Your task to perform on an android device: turn on location history Image 0: 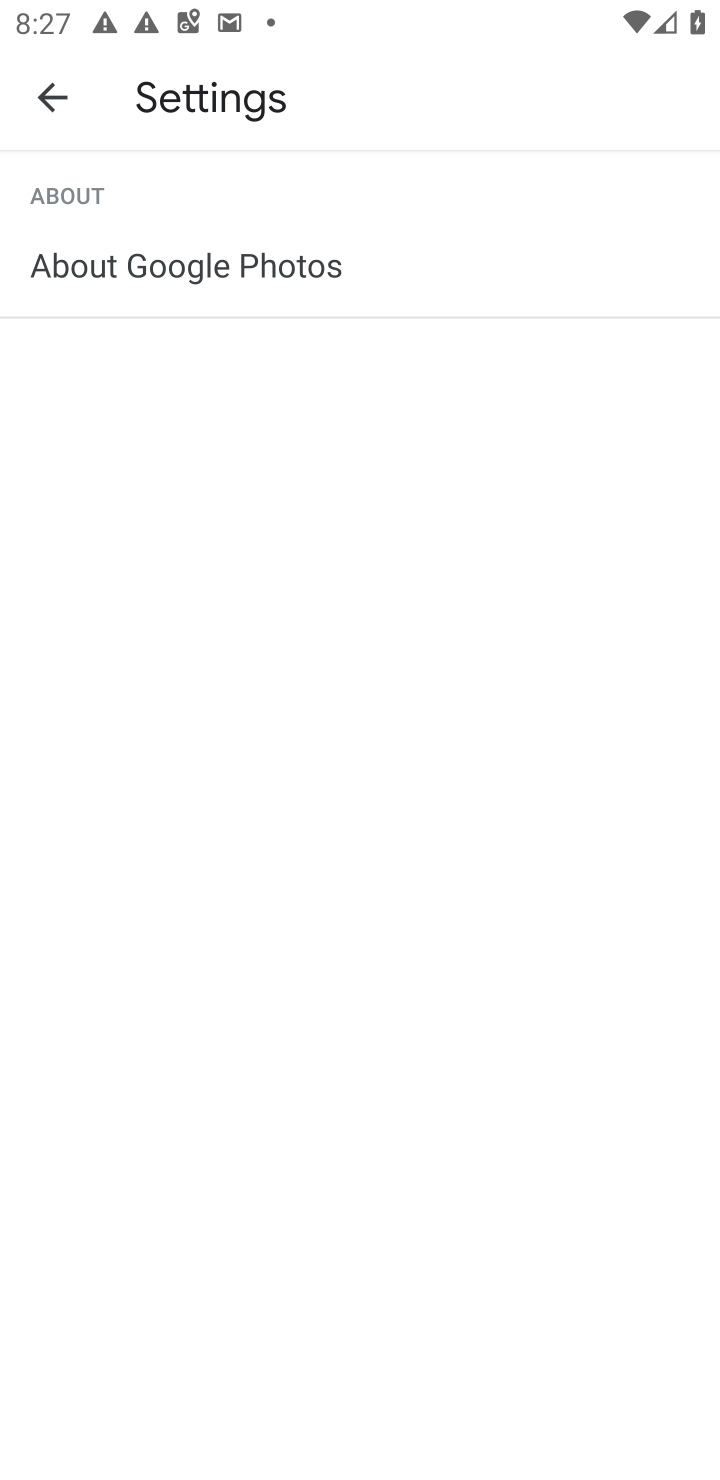
Step 0: press home button
Your task to perform on an android device: turn on location history Image 1: 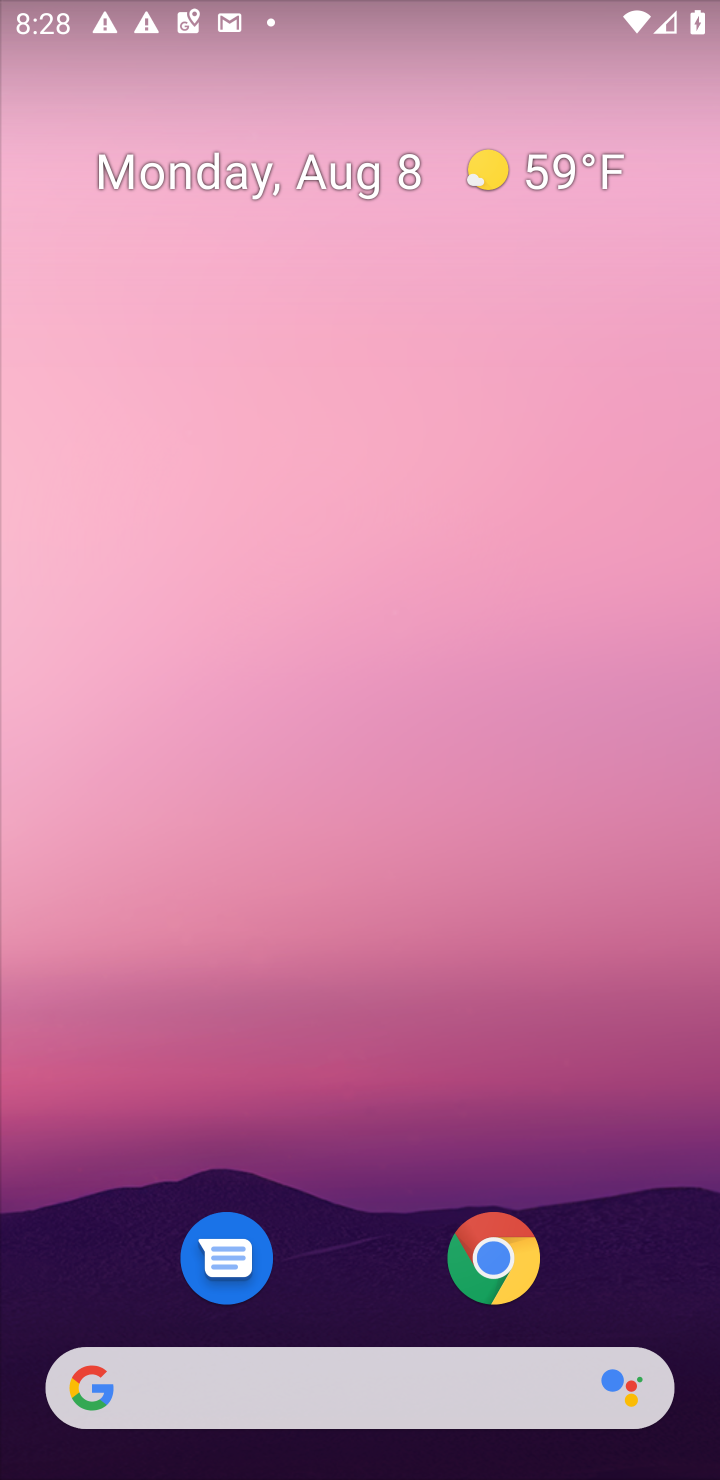
Step 1: drag from (365, 1087) to (484, 212)
Your task to perform on an android device: turn on location history Image 2: 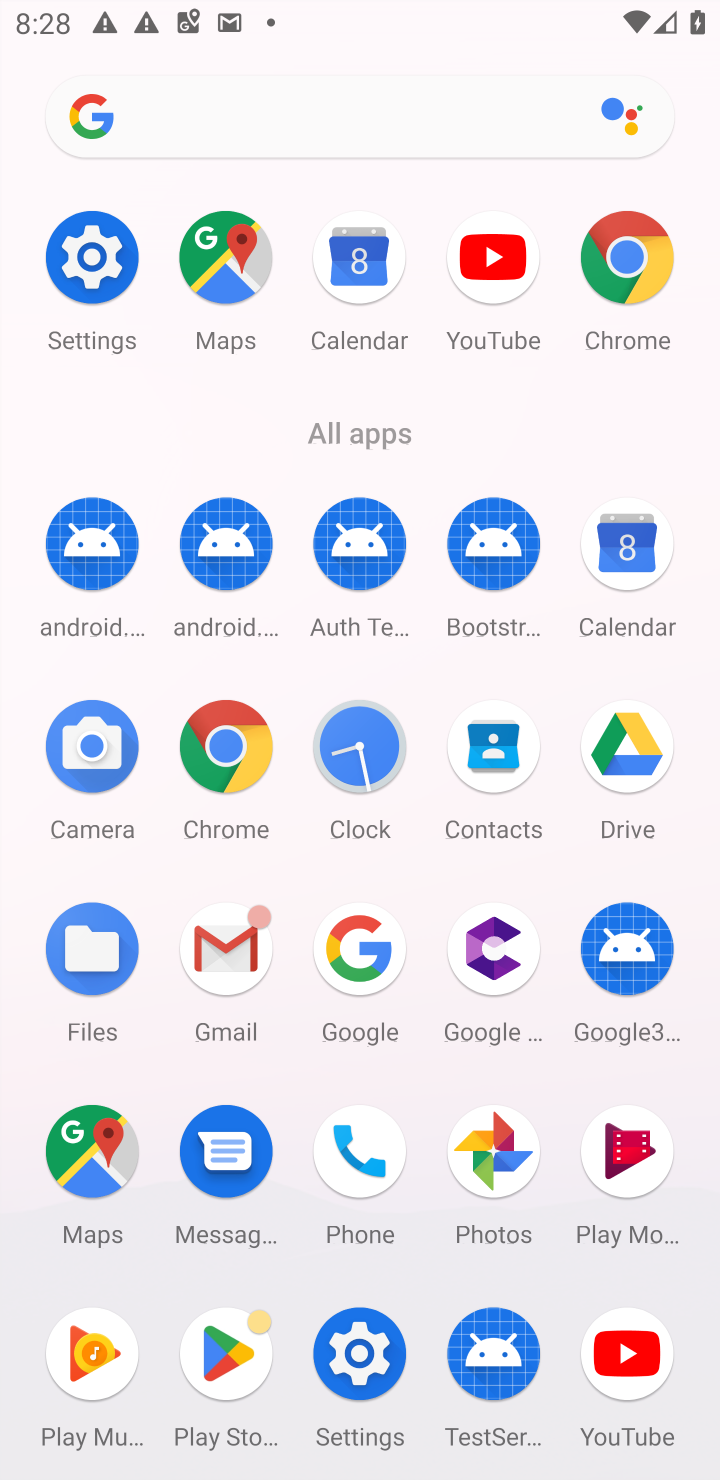
Step 2: click (111, 250)
Your task to perform on an android device: turn on location history Image 3: 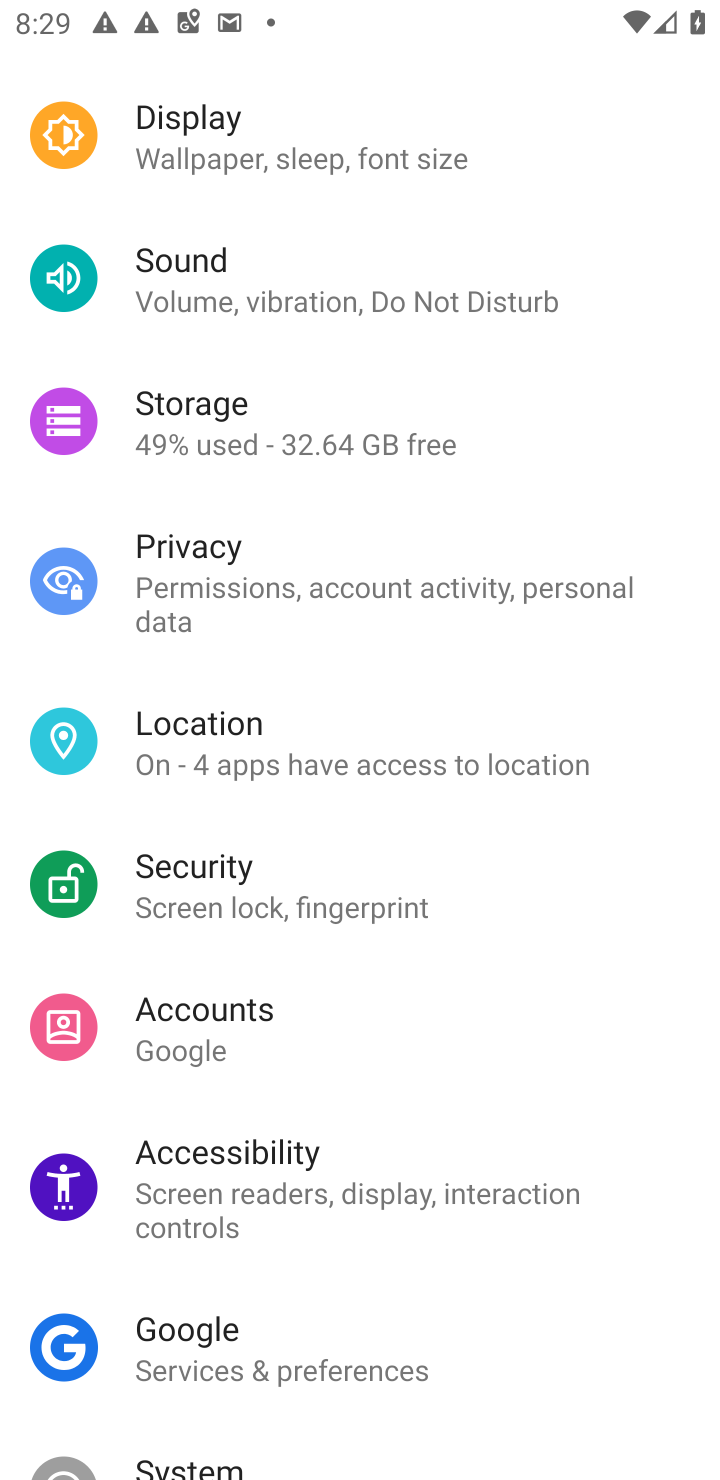
Step 3: press home button
Your task to perform on an android device: turn on location history Image 4: 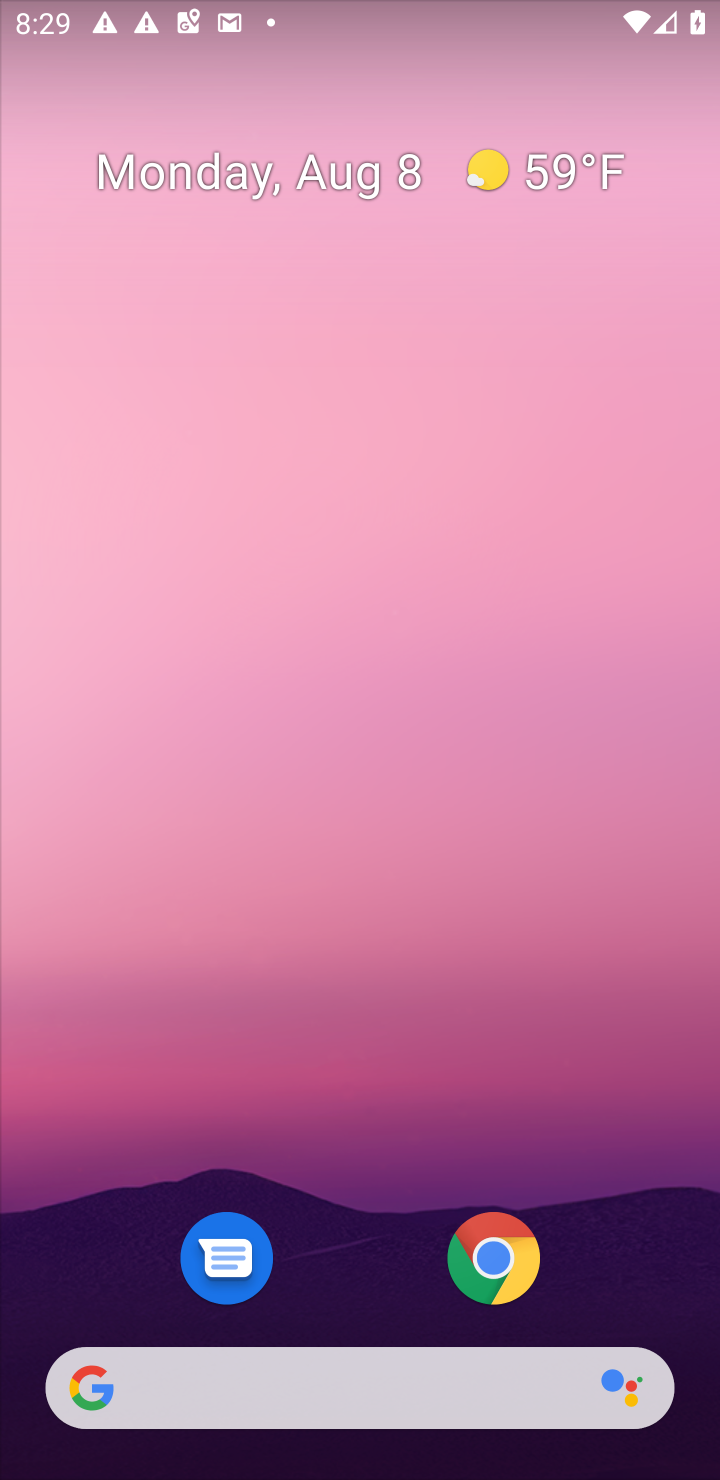
Step 4: drag from (294, 1055) to (357, 347)
Your task to perform on an android device: turn on location history Image 5: 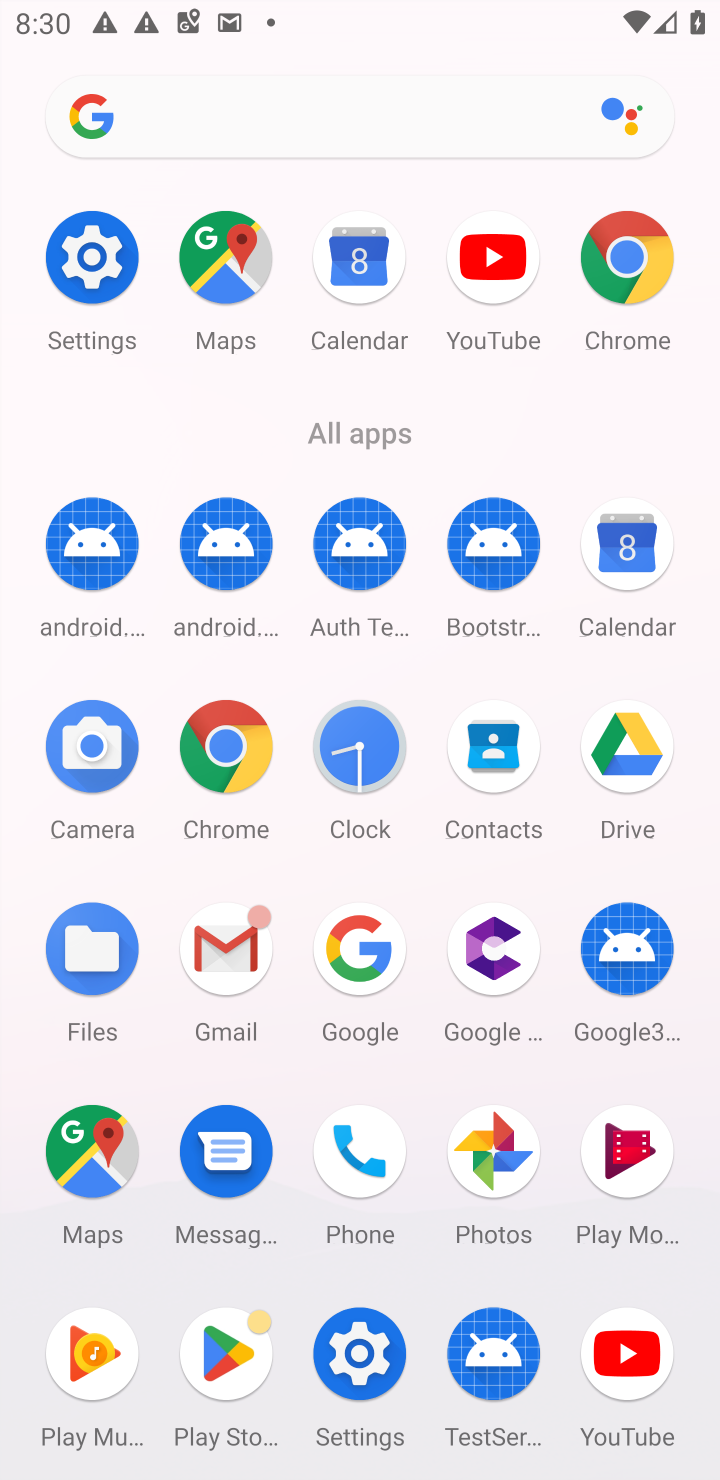
Step 5: click (335, 1347)
Your task to perform on an android device: turn on location history Image 6: 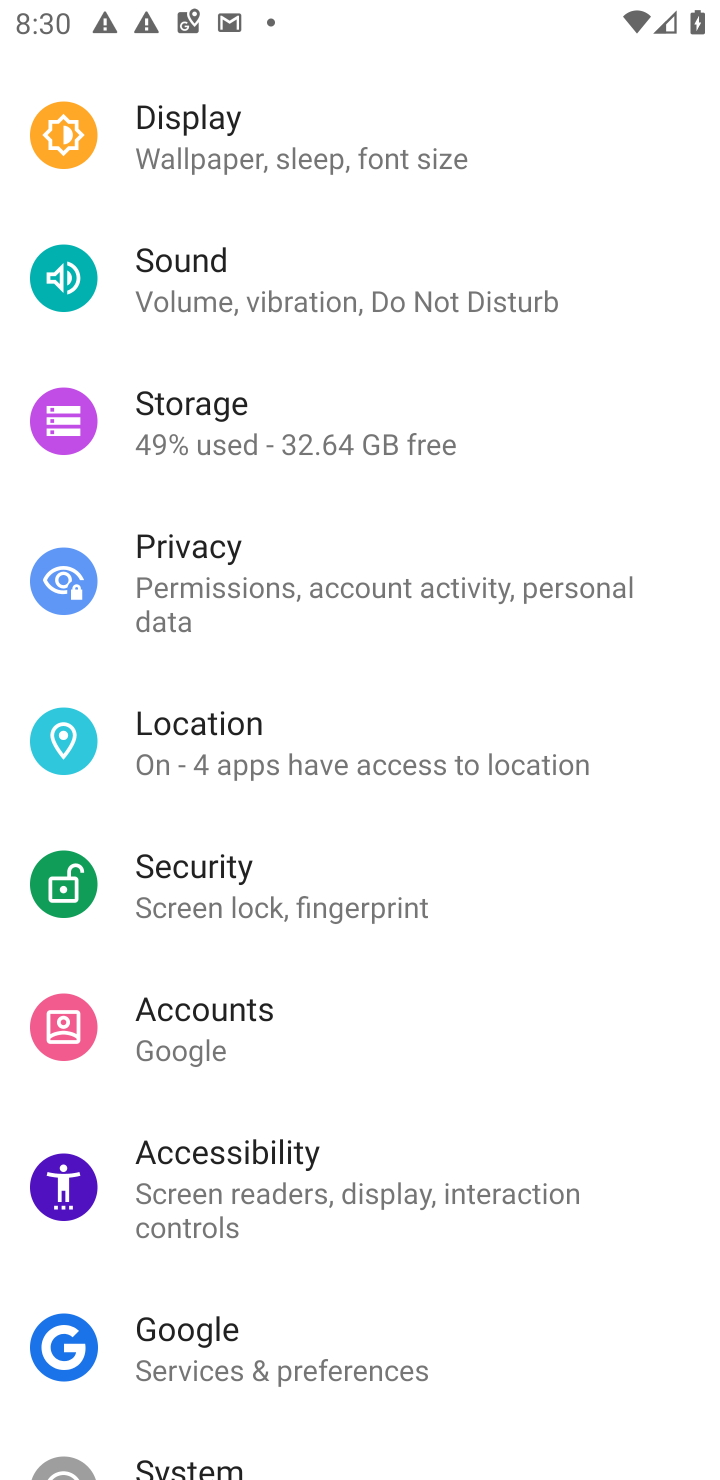
Step 6: task complete